Your task to perform on an android device: Search for "jbl charge 4" on ebay, select the first entry, add it to the cart, then select checkout. Image 0: 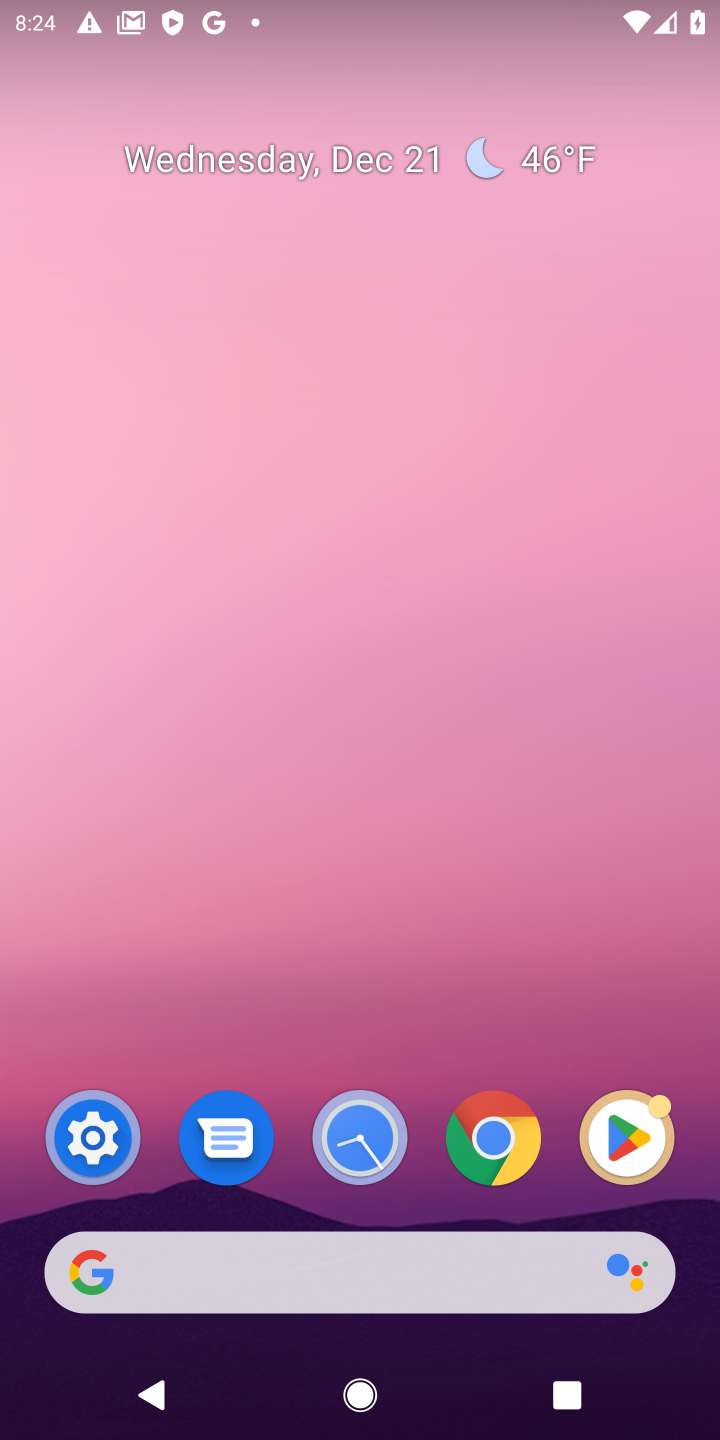
Step 0: click (494, 1146)
Your task to perform on an android device: Search for "jbl charge 4" on ebay, select the first entry, add it to the cart, then select checkout. Image 1: 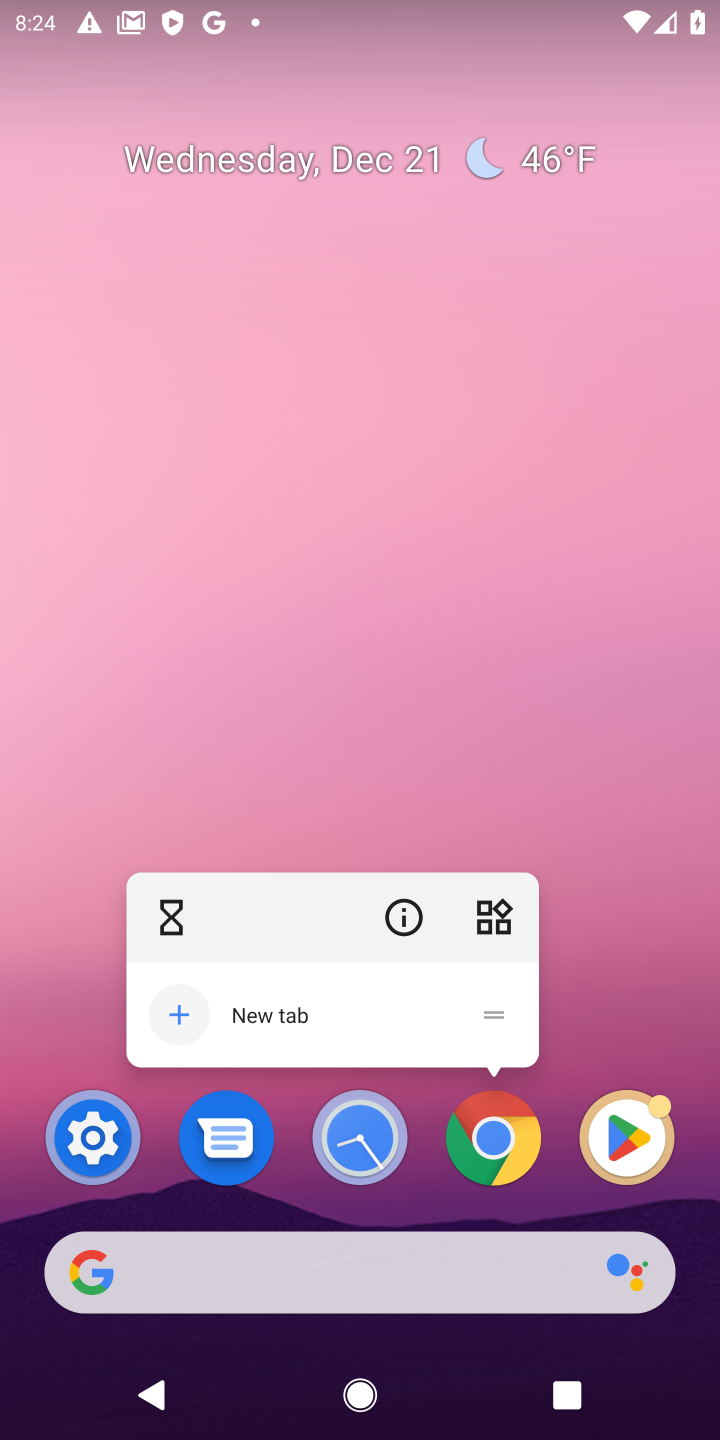
Step 1: click (494, 1146)
Your task to perform on an android device: Search for "jbl charge 4" on ebay, select the first entry, add it to the cart, then select checkout. Image 2: 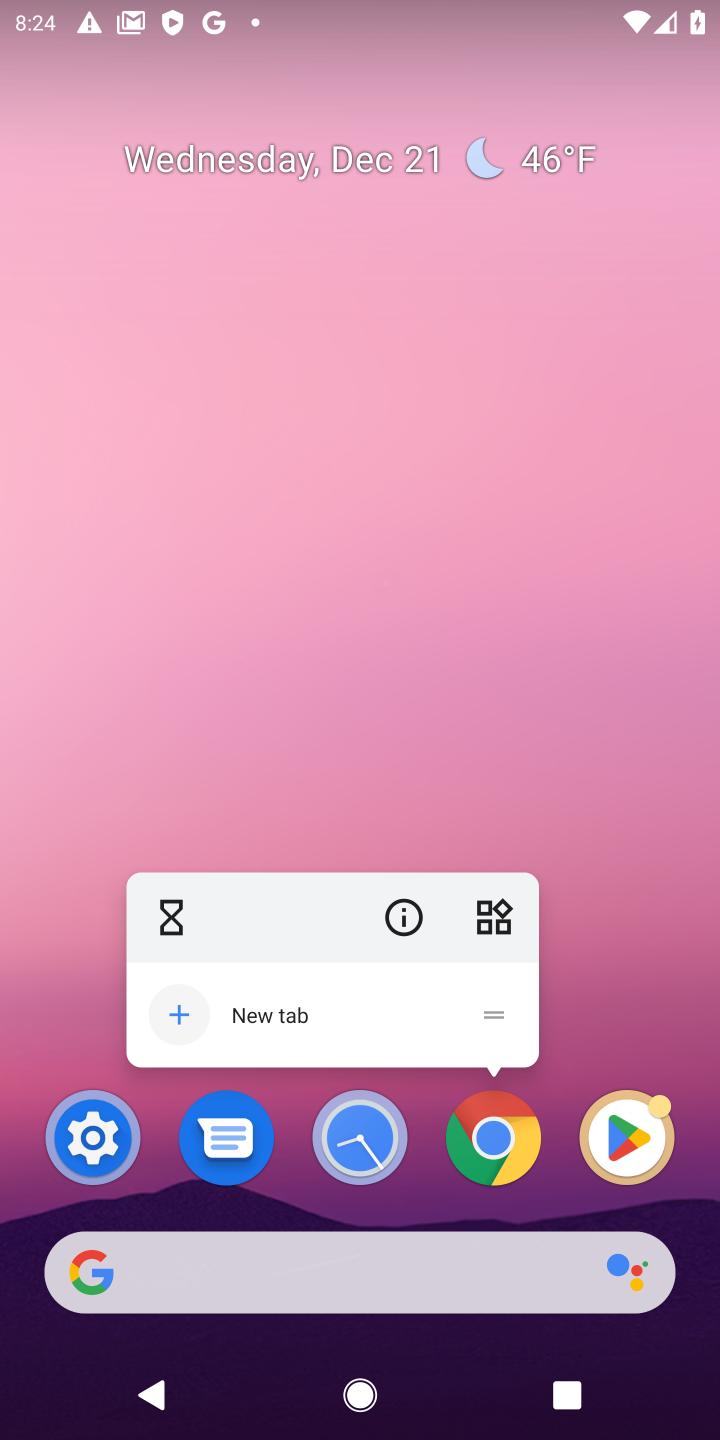
Step 2: click (494, 1146)
Your task to perform on an android device: Search for "jbl charge 4" on ebay, select the first entry, add it to the cart, then select checkout. Image 3: 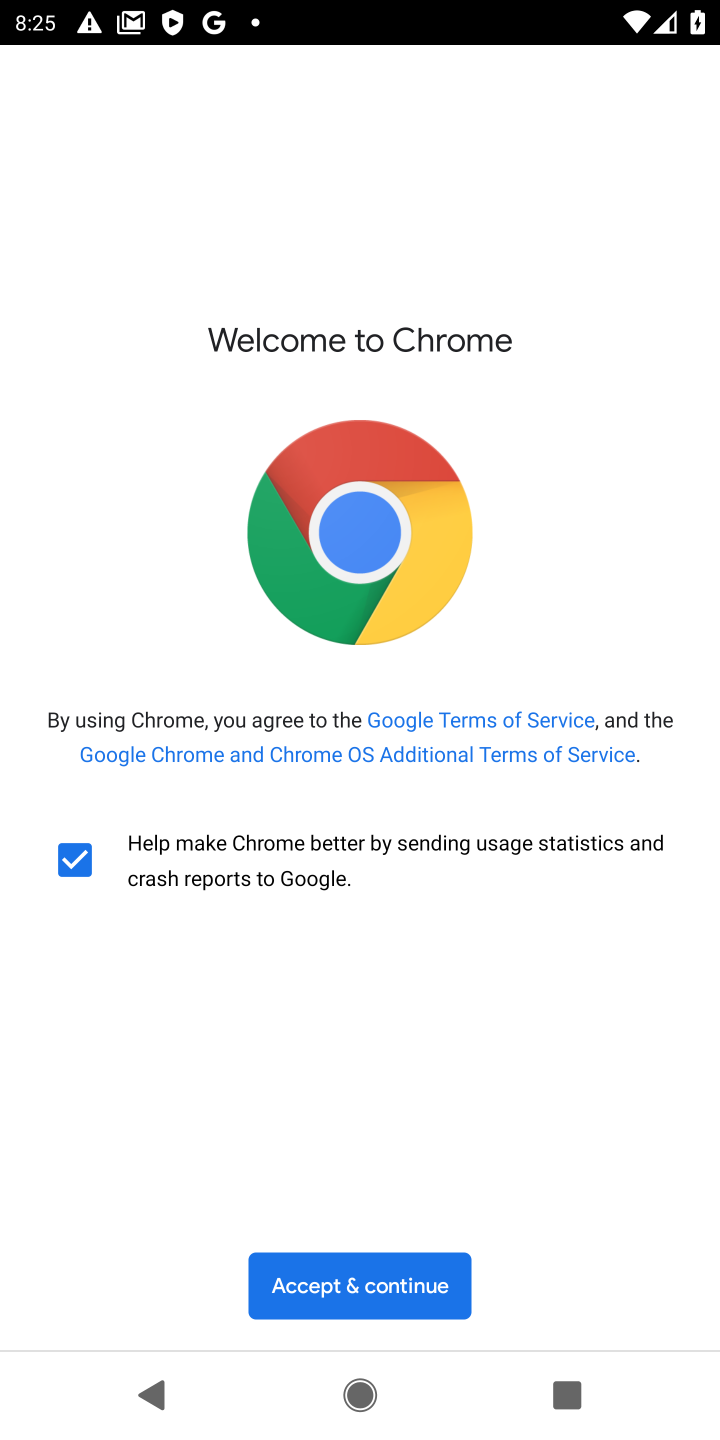
Step 3: click (336, 1289)
Your task to perform on an android device: Search for "jbl charge 4" on ebay, select the first entry, add it to the cart, then select checkout. Image 4: 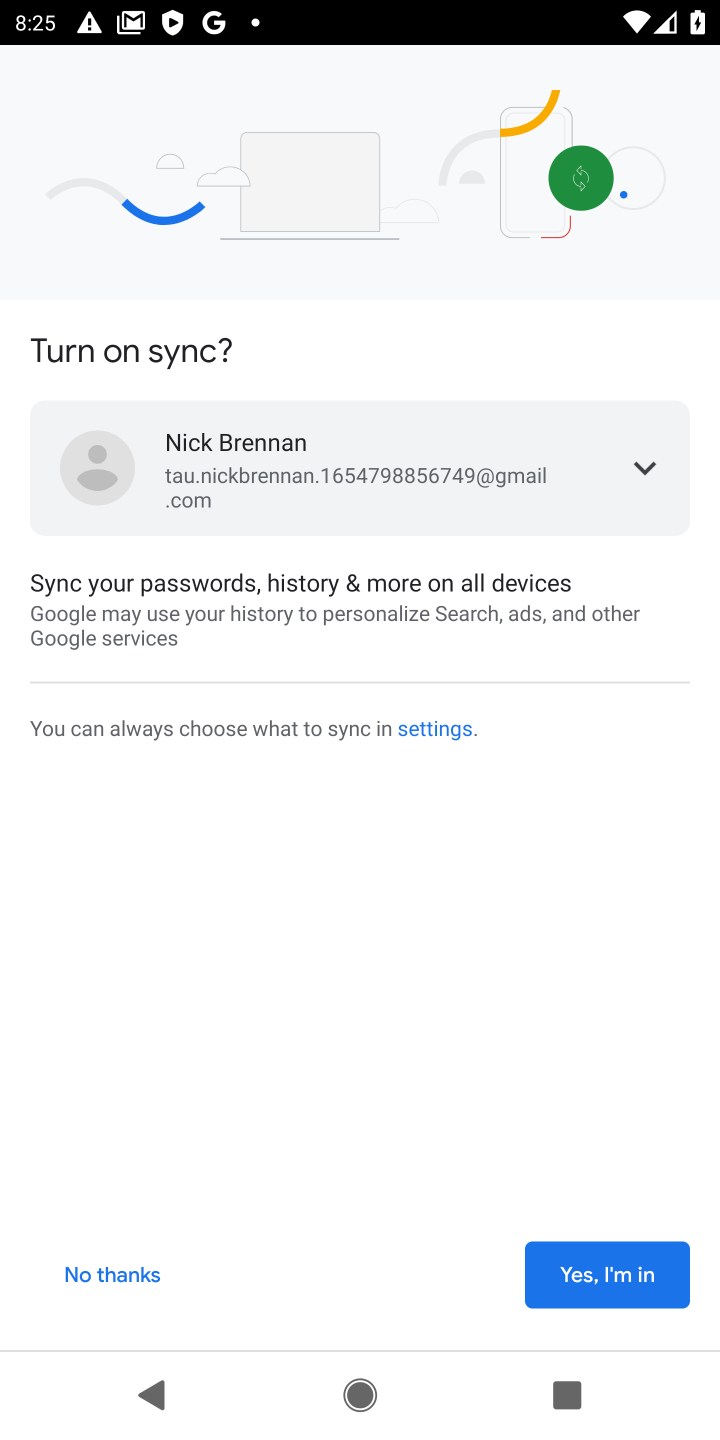
Step 4: click (93, 1273)
Your task to perform on an android device: Search for "jbl charge 4" on ebay, select the first entry, add it to the cart, then select checkout. Image 5: 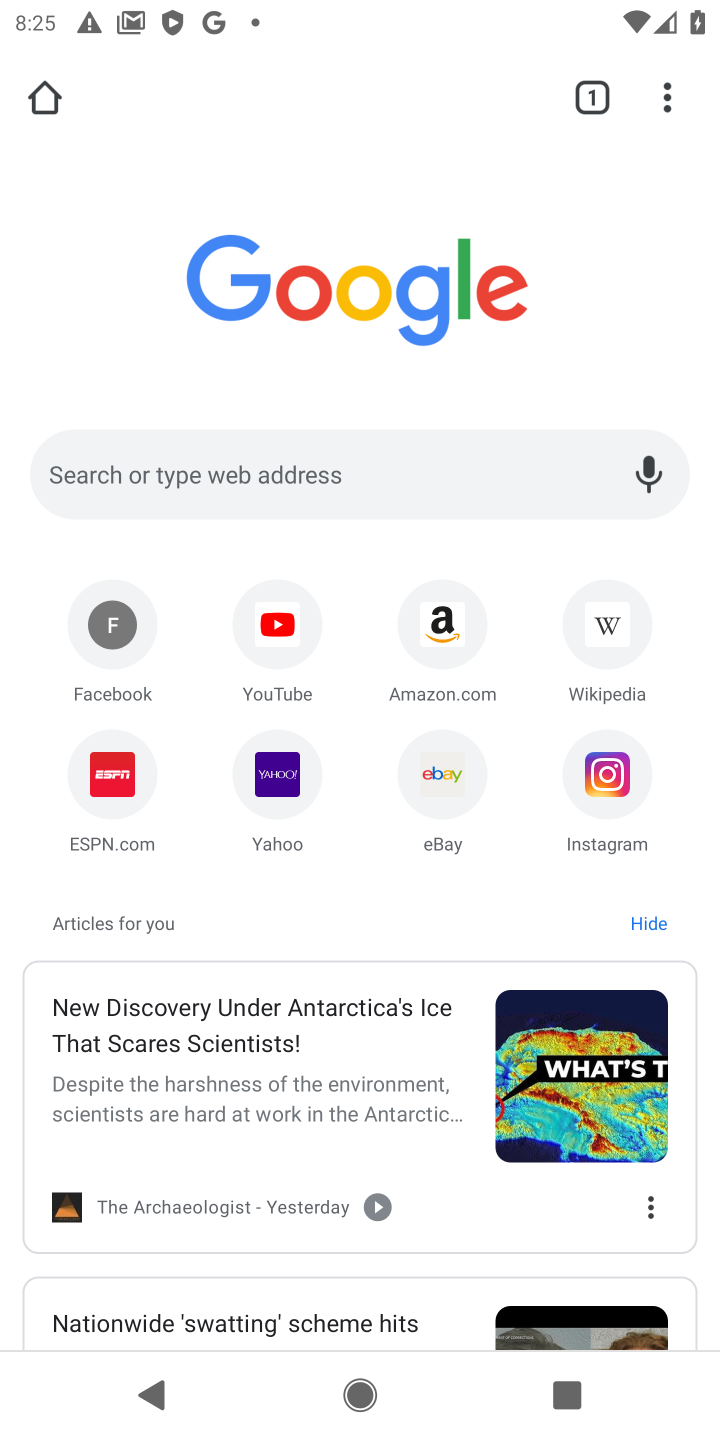
Step 5: click (429, 792)
Your task to perform on an android device: Search for "jbl charge 4" on ebay, select the first entry, add it to the cart, then select checkout. Image 6: 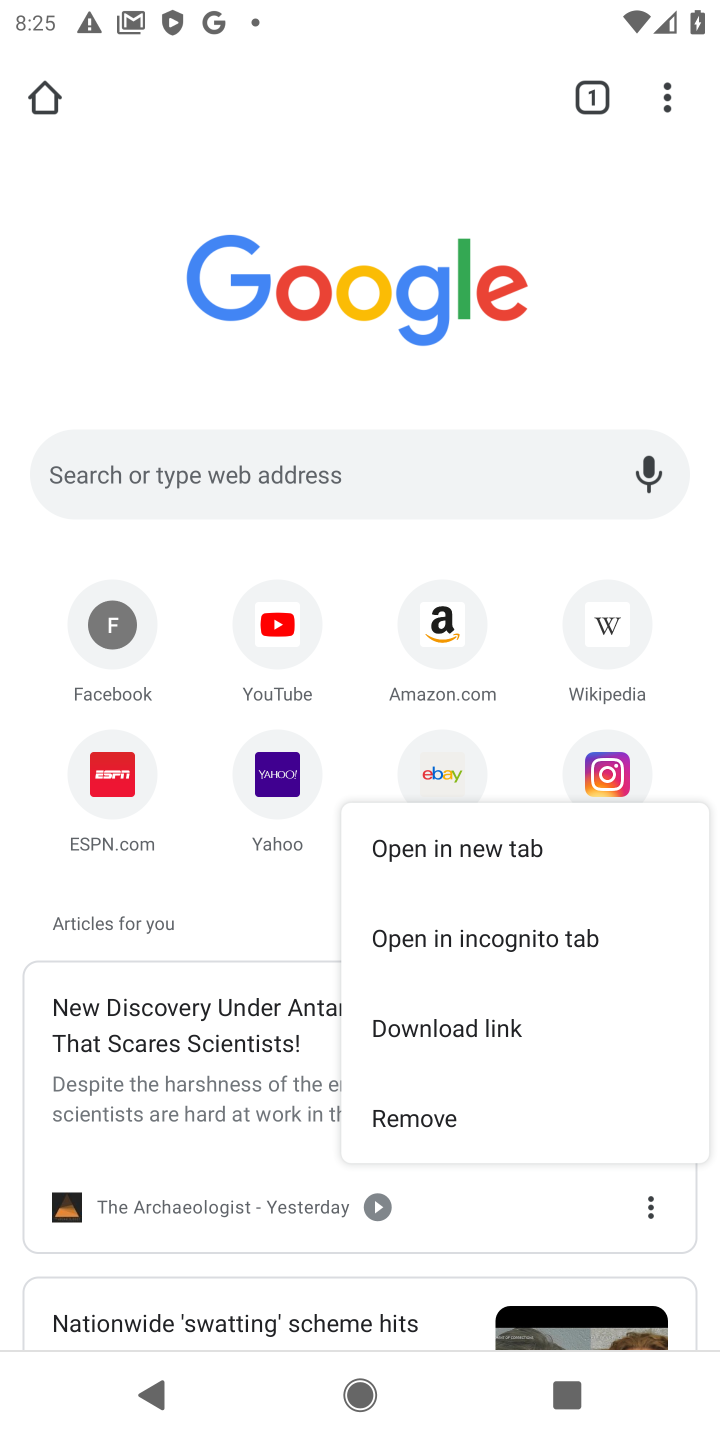
Step 6: click (429, 781)
Your task to perform on an android device: Search for "jbl charge 4" on ebay, select the first entry, add it to the cart, then select checkout. Image 7: 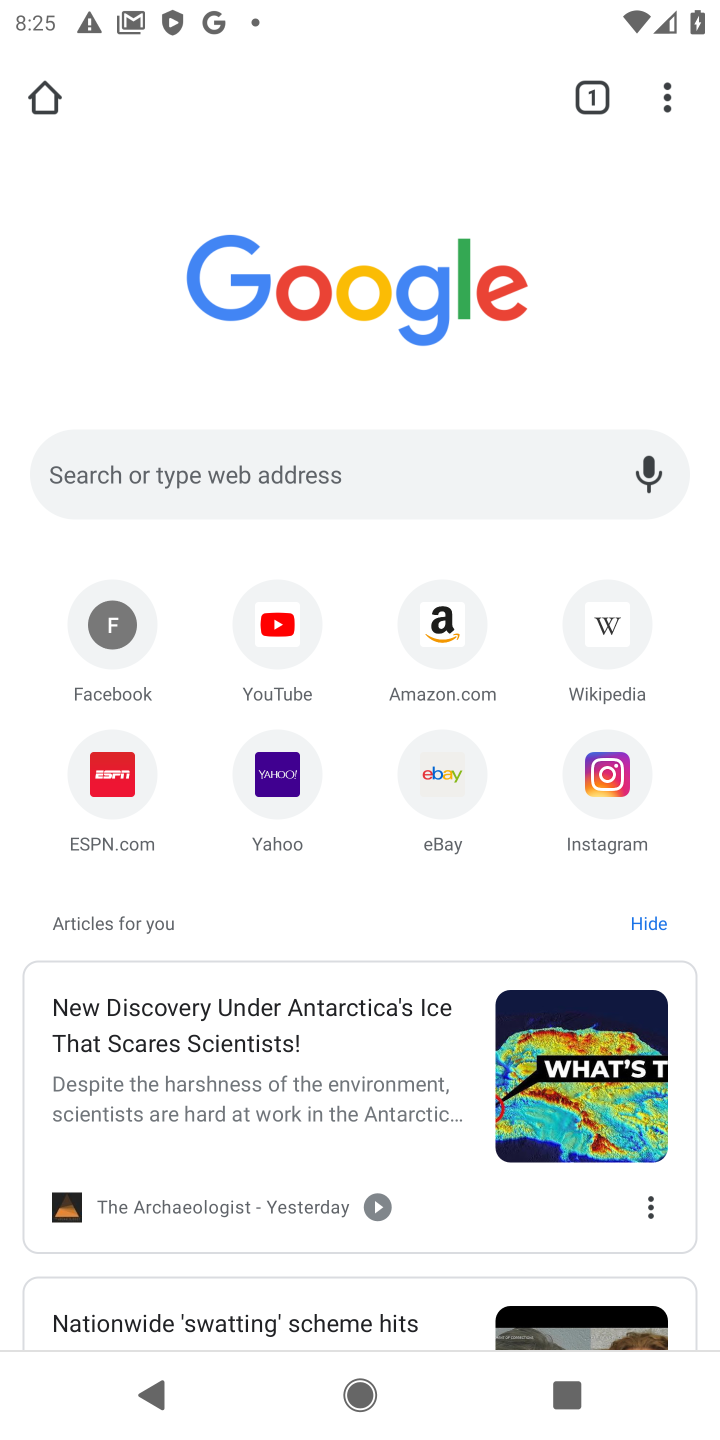
Step 7: click (429, 778)
Your task to perform on an android device: Search for "jbl charge 4" on ebay, select the first entry, add it to the cart, then select checkout. Image 8: 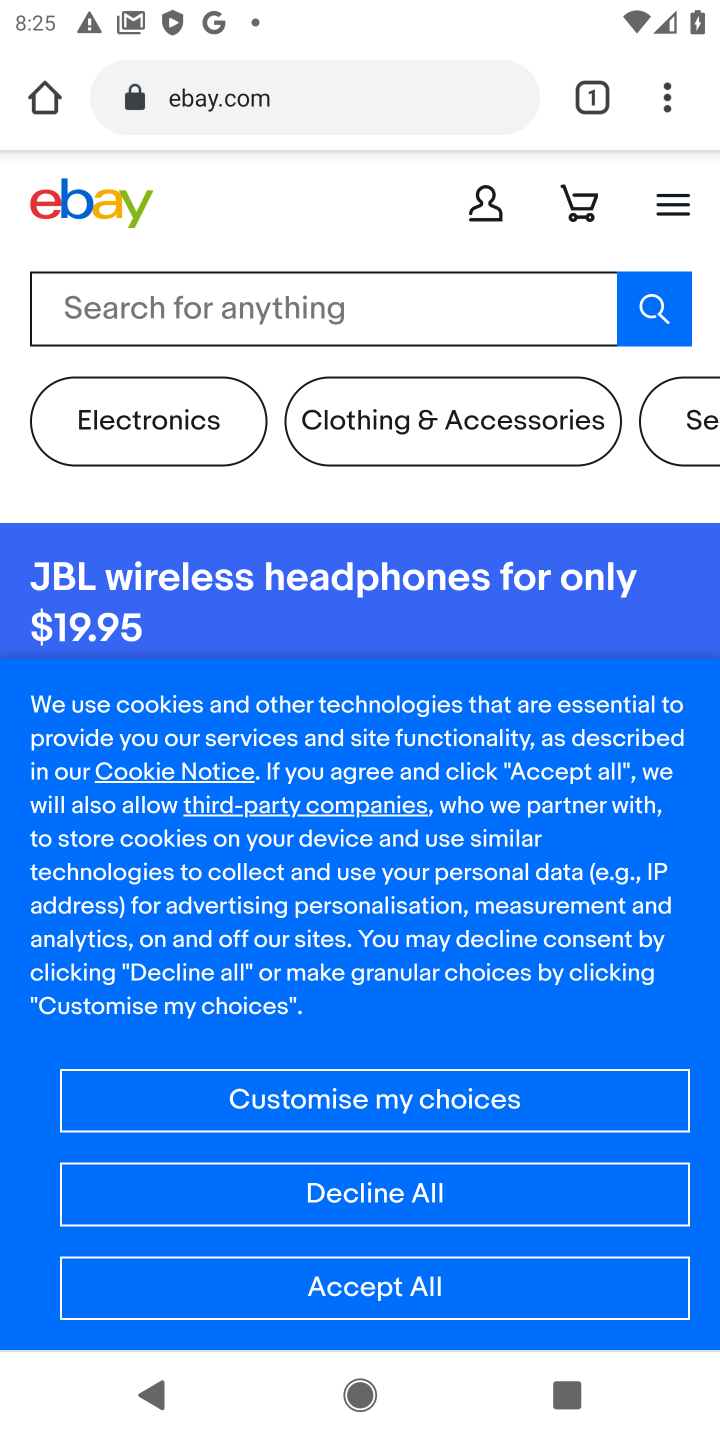
Step 8: click (78, 302)
Your task to perform on an android device: Search for "jbl charge 4" on ebay, select the first entry, add it to the cart, then select checkout. Image 9: 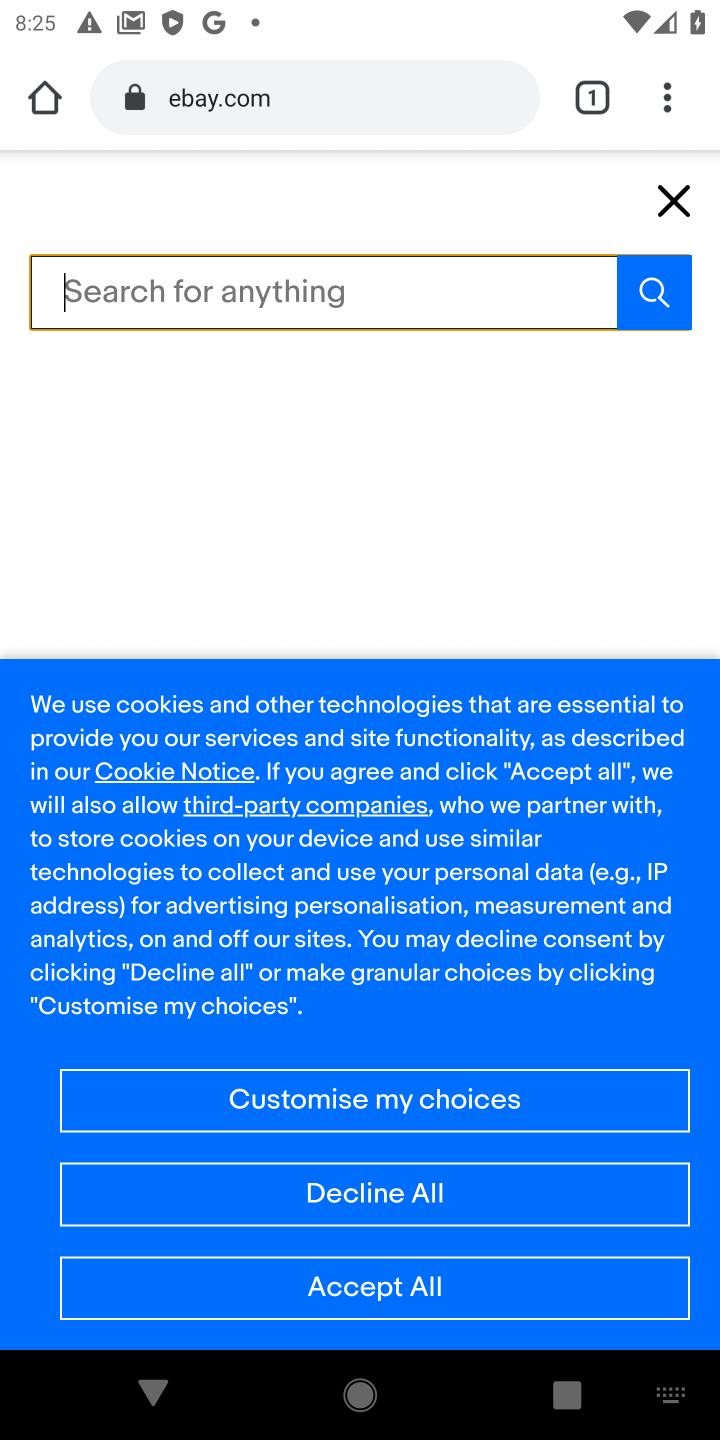
Step 9: type "jbl charge 4"
Your task to perform on an android device: Search for "jbl charge 4" on ebay, select the first entry, add it to the cart, then select checkout. Image 10: 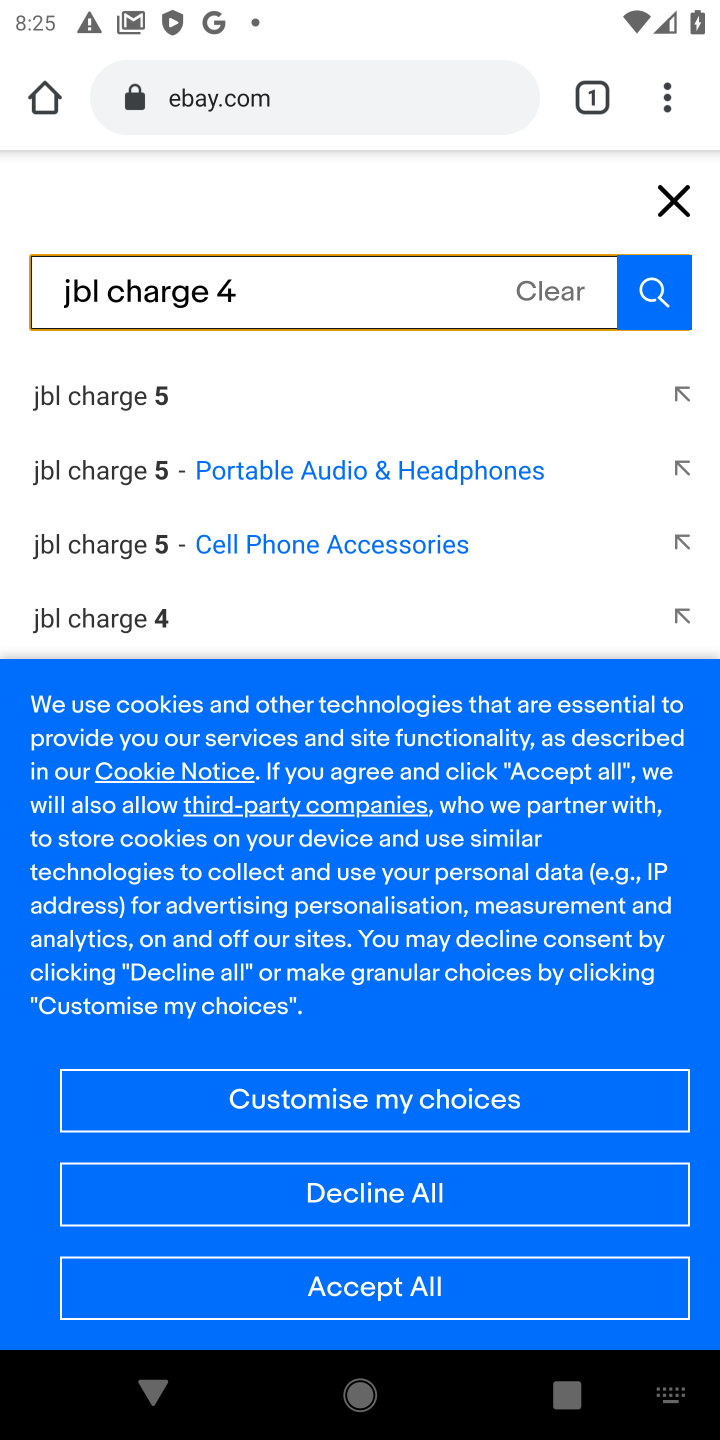
Step 10: click (654, 290)
Your task to perform on an android device: Search for "jbl charge 4" on ebay, select the first entry, add it to the cart, then select checkout. Image 11: 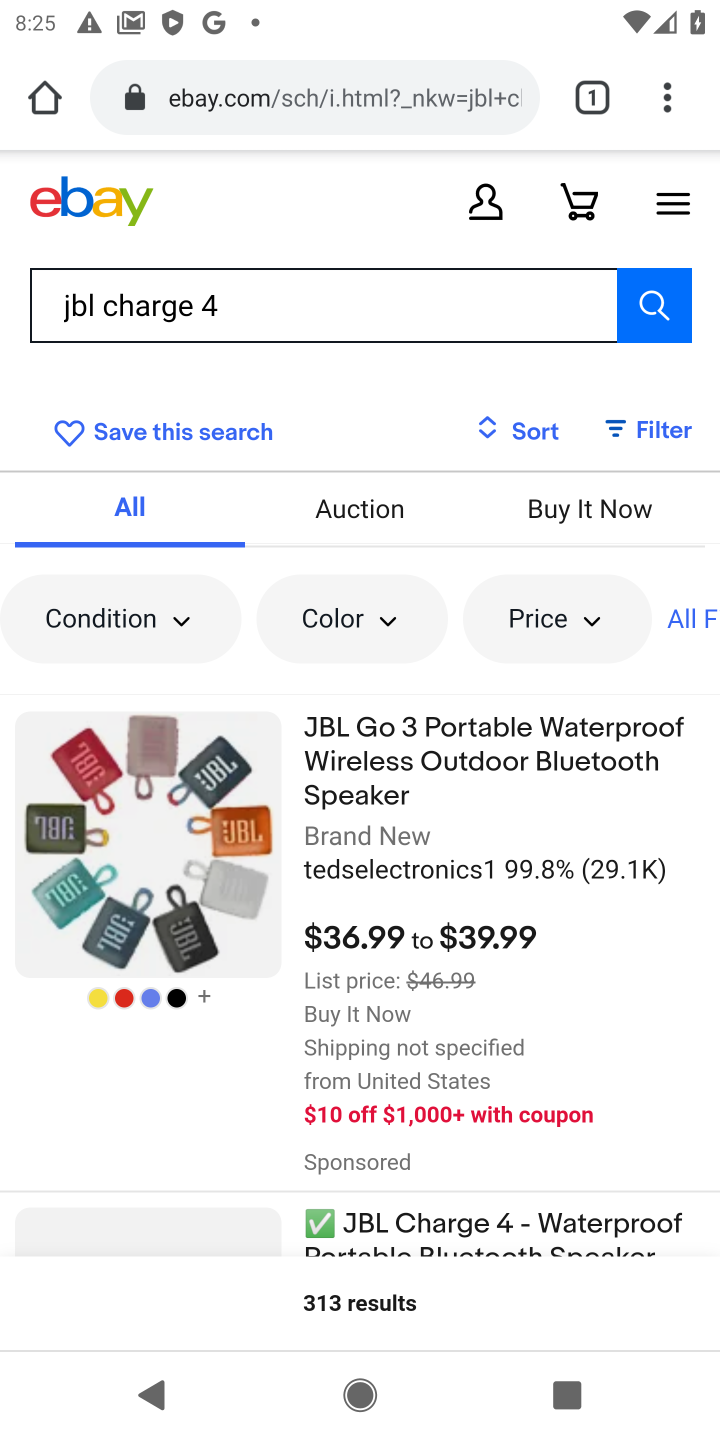
Step 11: task complete